Your task to perform on an android device: Open Android settings Image 0: 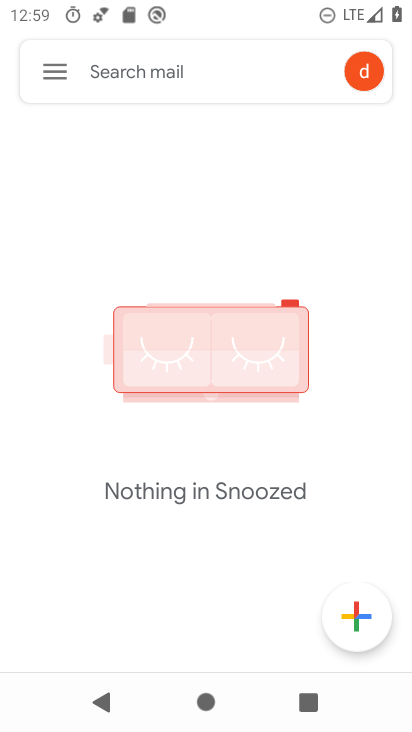
Step 0: press home button
Your task to perform on an android device: Open Android settings Image 1: 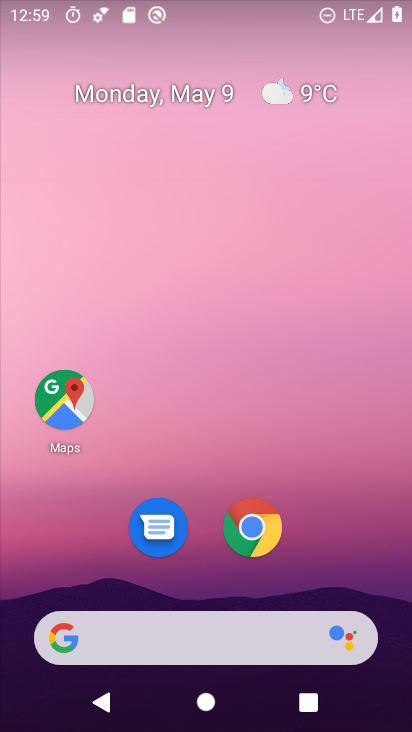
Step 1: drag from (164, 561) to (274, 59)
Your task to perform on an android device: Open Android settings Image 2: 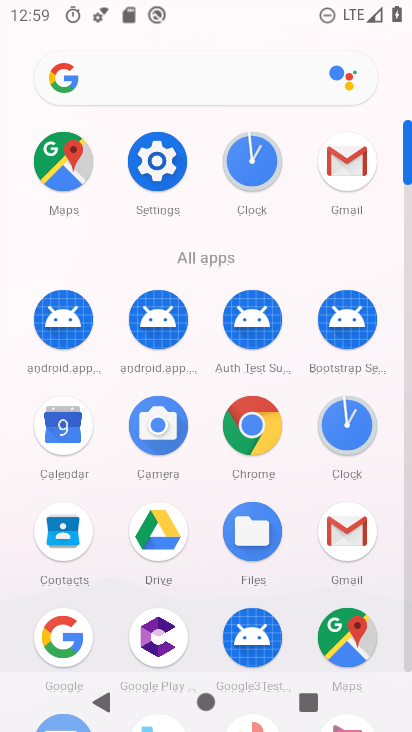
Step 2: click (165, 172)
Your task to perform on an android device: Open Android settings Image 3: 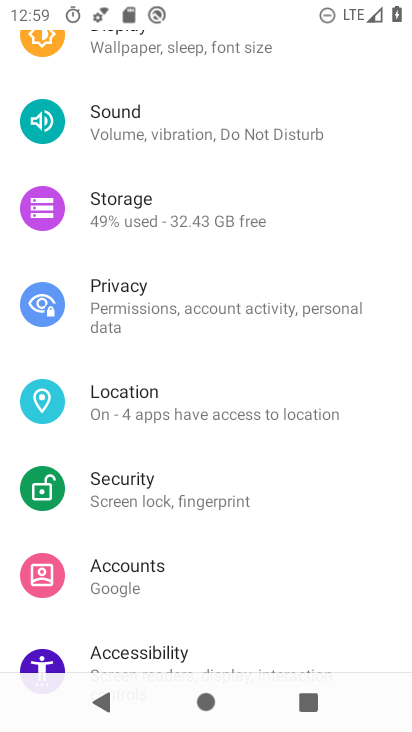
Step 3: drag from (244, 227) to (168, 705)
Your task to perform on an android device: Open Android settings Image 4: 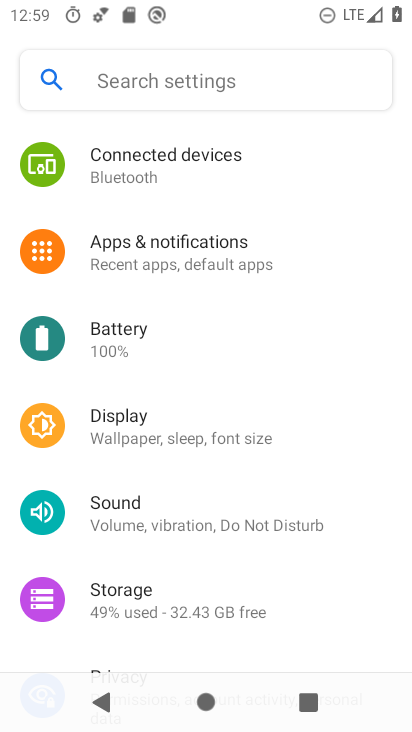
Step 4: drag from (164, 495) to (265, 58)
Your task to perform on an android device: Open Android settings Image 5: 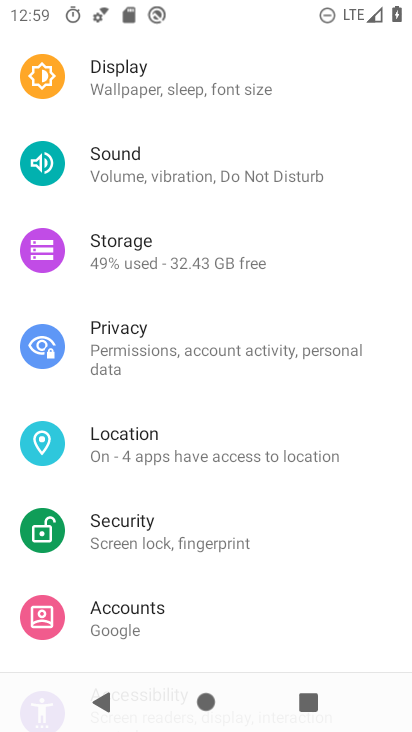
Step 5: drag from (177, 485) to (238, 1)
Your task to perform on an android device: Open Android settings Image 6: 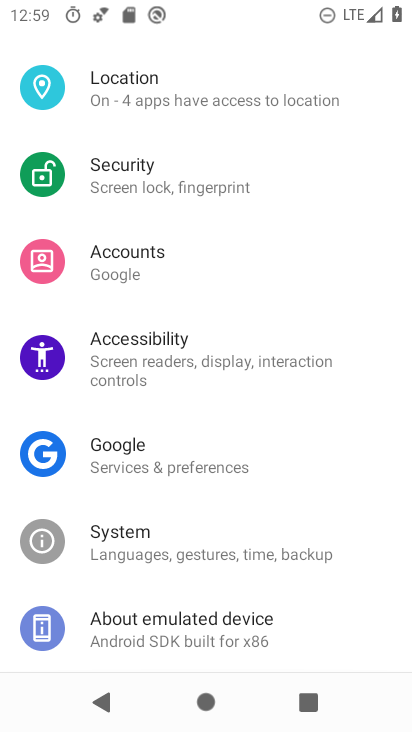
Step 6: drag from (161, 541) to (245, 68)
Your task to perform on an android device: Open Android settings Image 7: 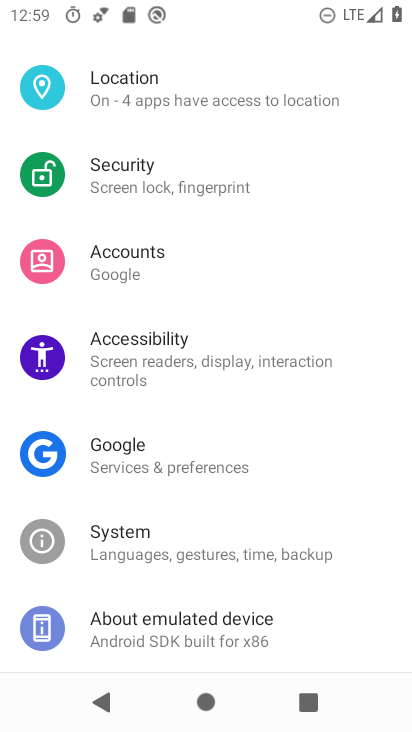
Step 7: click (134, 632)
Your task to perform on an android device: Open Android settings Image 8: 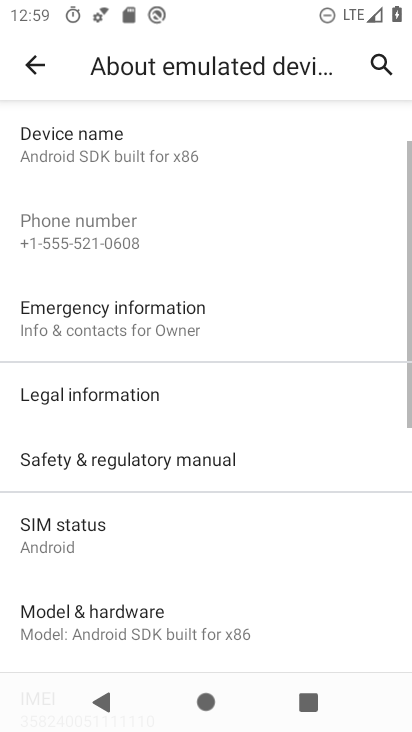
Step 8: drag from (128, 589) to (260, 33)
Your task to perform on an android device: Open Android settings Image 9: 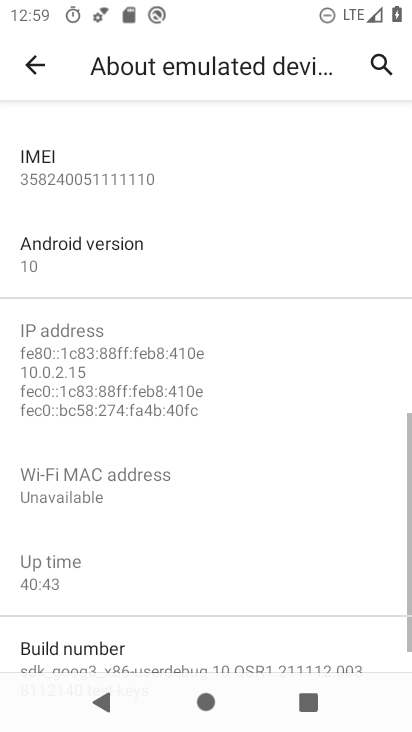
Step 9: click (105, 252)
Your task to perform on an android device: Open Android settings Image 10: 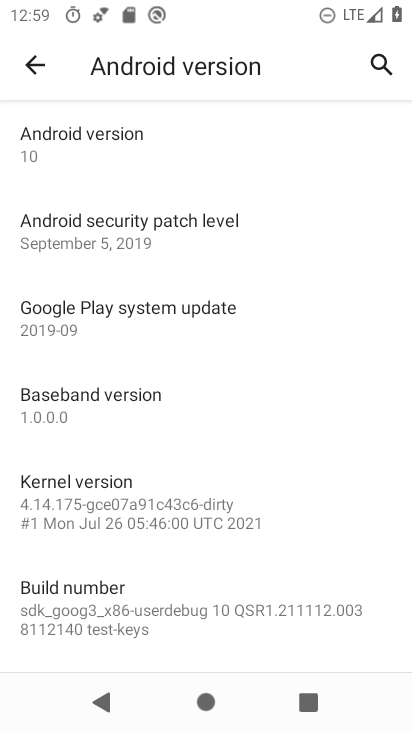
Step 10: task complete